Your task to perform on an android device: What's the weather? Image 0: 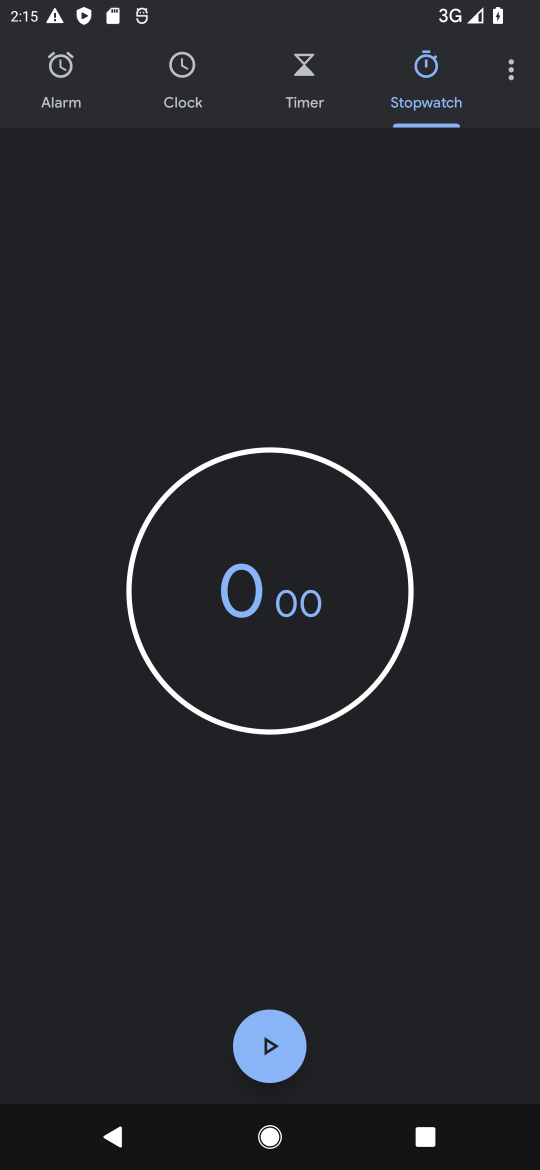
Step 0: press home button
Your task to perform on an android device: What's the weather? Image 1: 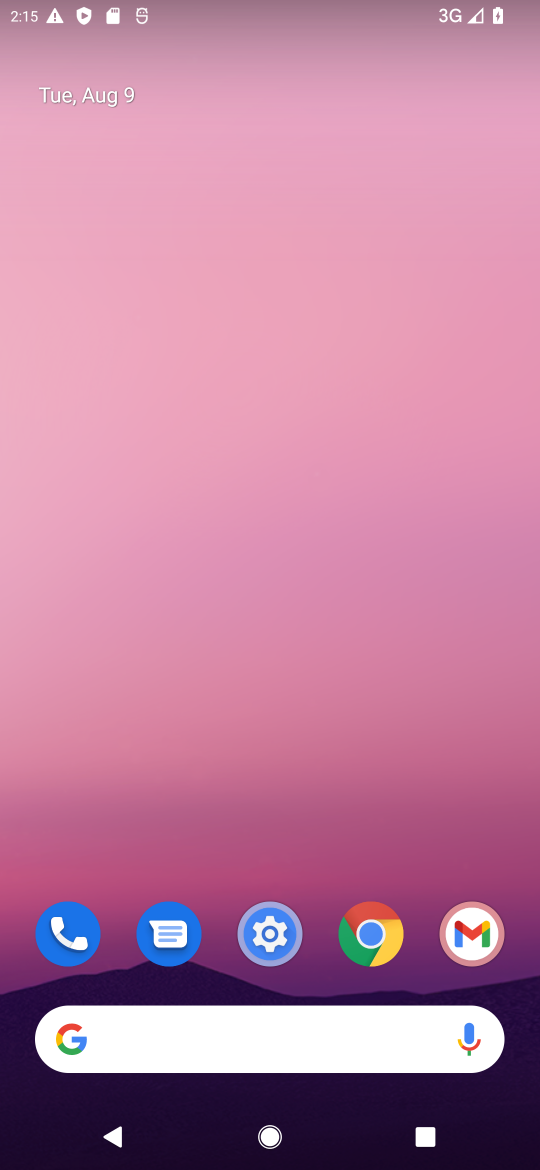
Step 1: click (250, 1036)
Your task to perform on an android device: What's the weather? Image 2: 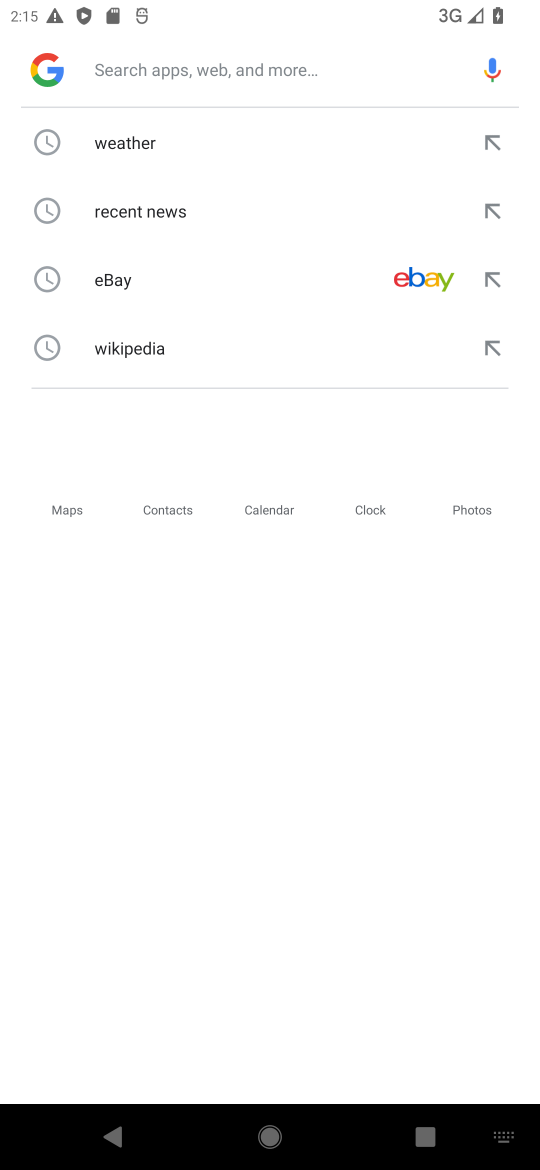
Step 2: click (152, 137)
Your task to perform on an android device: What's the weather? Image 3: 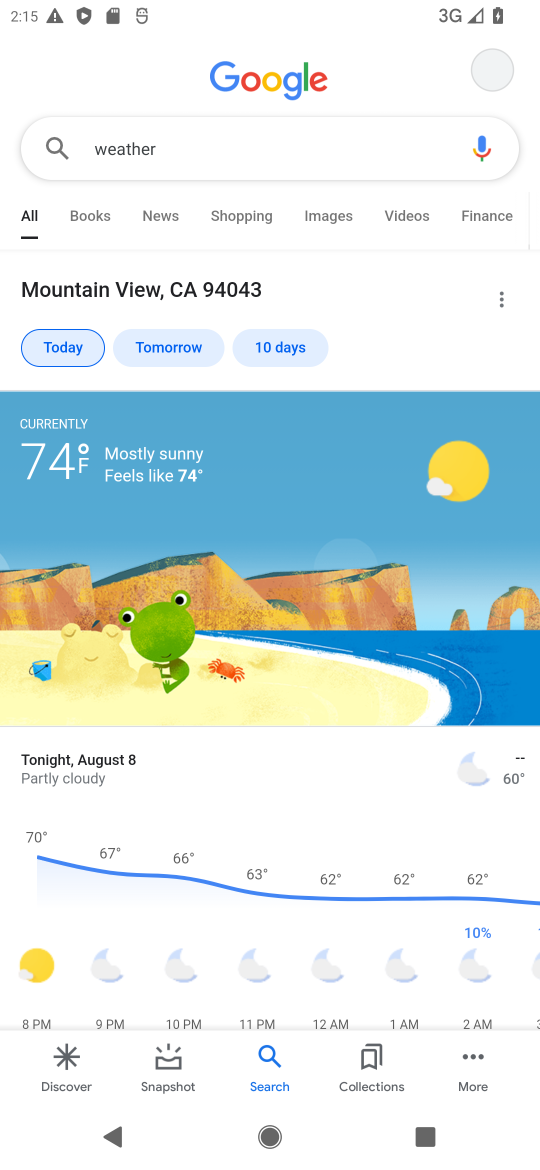
Step 3: task complete